Your task to perform on an android device: check google app version Image 0: 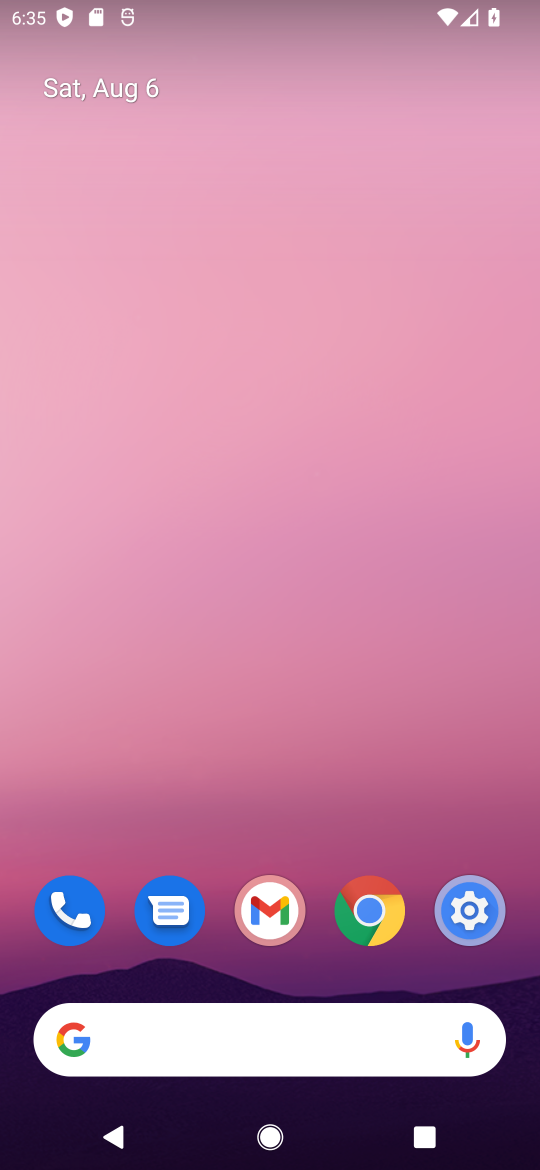
Step 0: drag from (500, 1123) to (455, 354)
Your task to perform on an android device: check google app version Image 1: 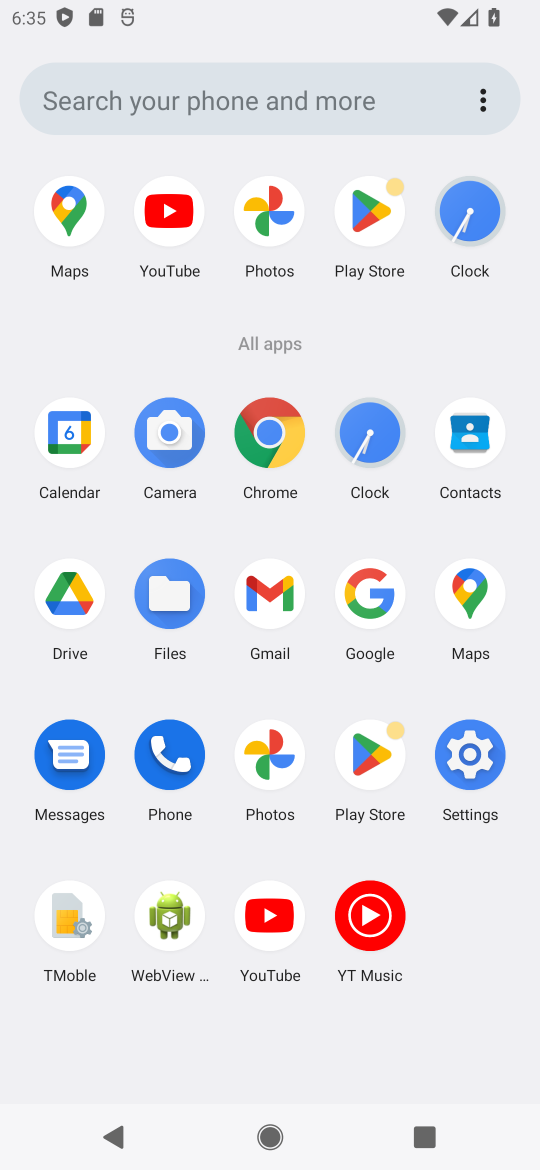
Step 1: click (359, 610)
Your task to perform on an android device: check google app version Image 2: 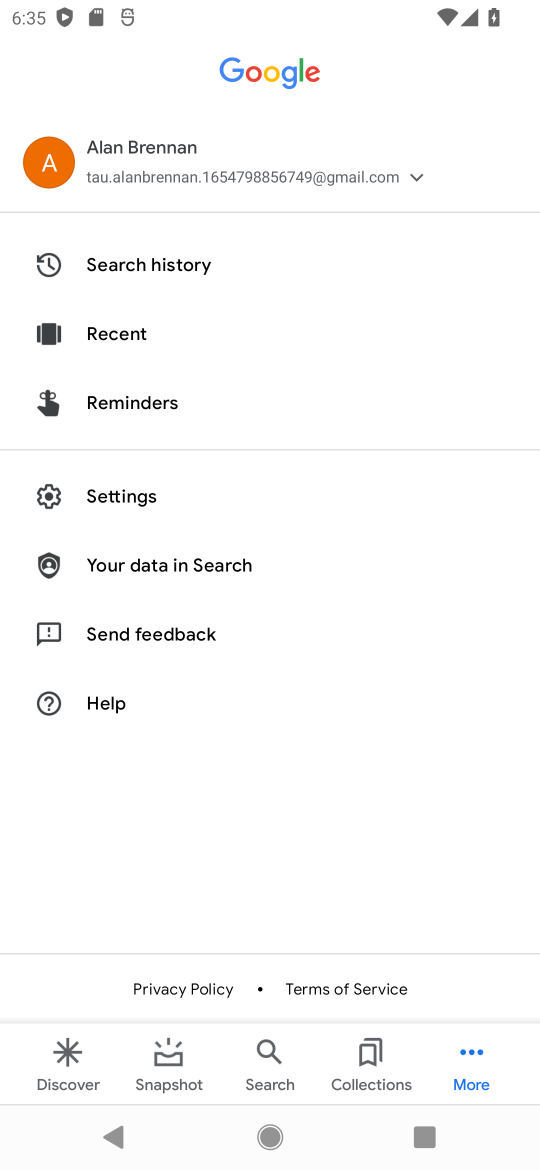
Step 2: click (463, 1070)
Your task to perform on an android device: check google app version Image 3: 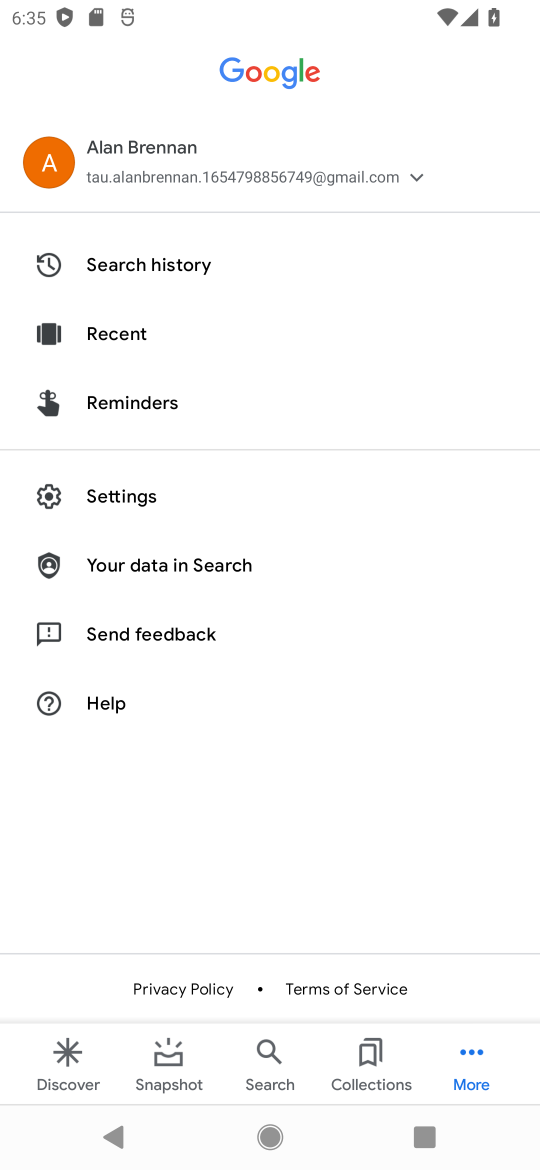
Step 3: click (461, 1070)
Your task to perform on an android device: check google app version Image 4: 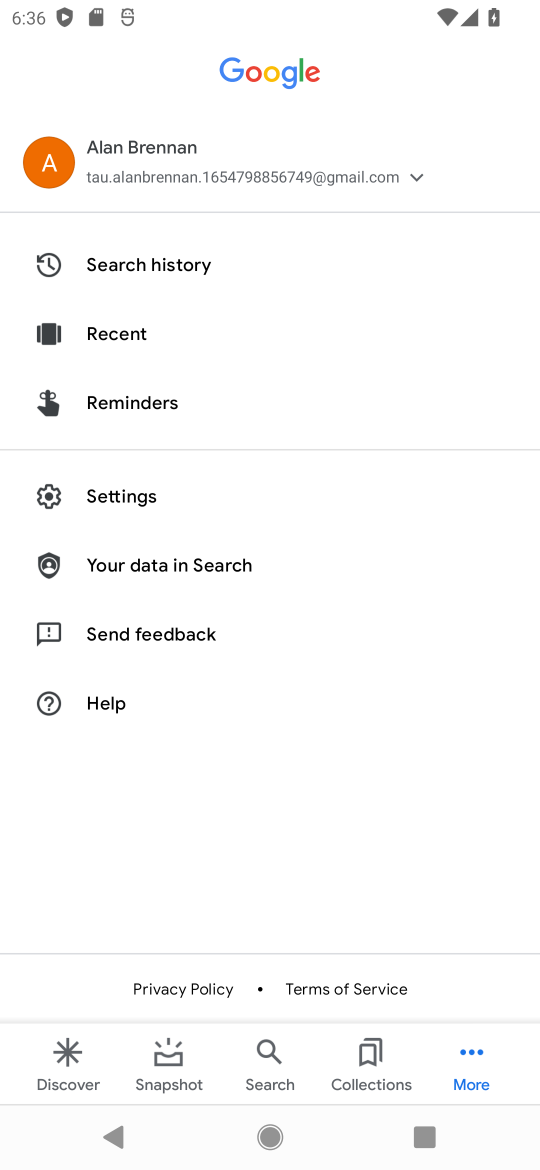
Step 4: click (115, 490)
Your task to perform on an android device: check google app version Image 5: 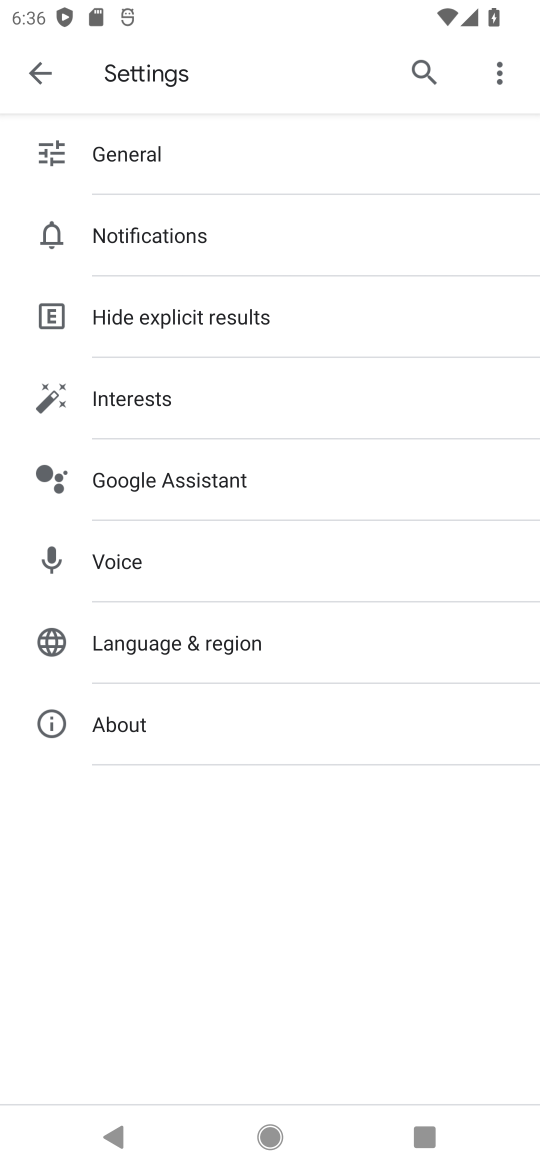
Step 5: click (155, 718)
Your task to perform on an android device: check google app version Image 6: 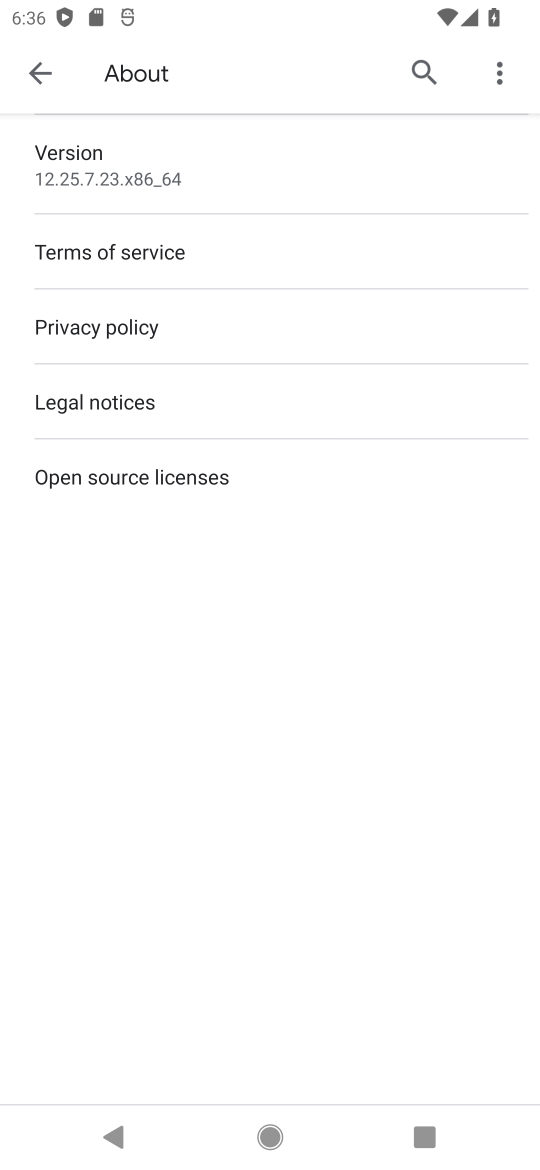
Step 6: click (163, 167)
Your task to perform on an android device: check google app version Image 7: 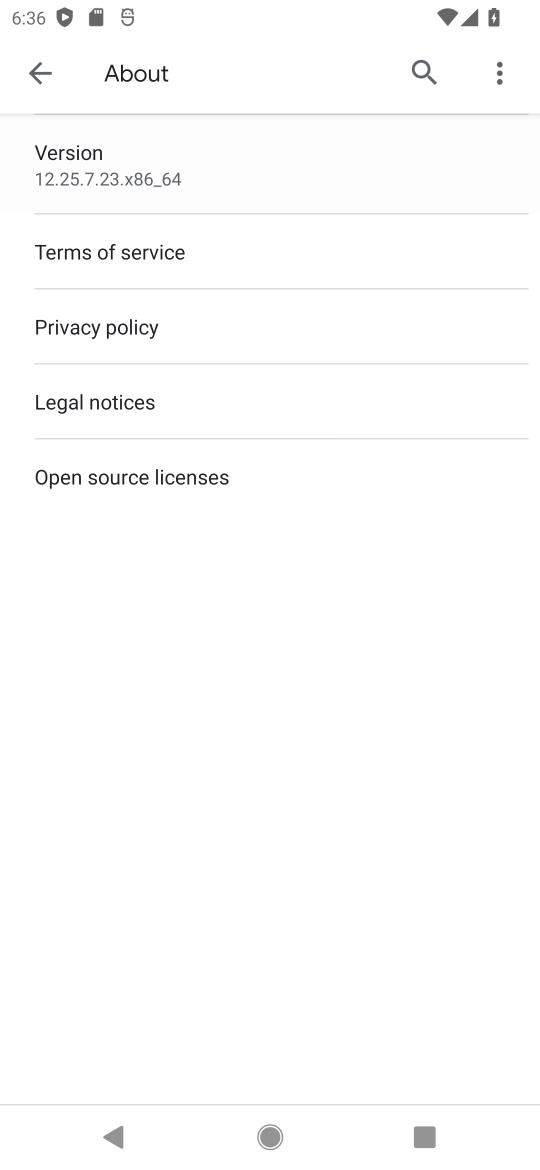
Step 7: task complete